Your task to perform on an android device: Go to Amazon Image 0: 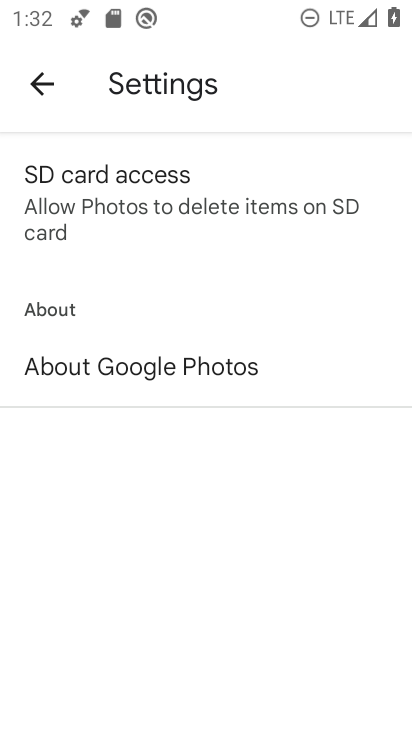
Step 0: press home button
Your task to perform on an android device: Go to Amazon Image 1: 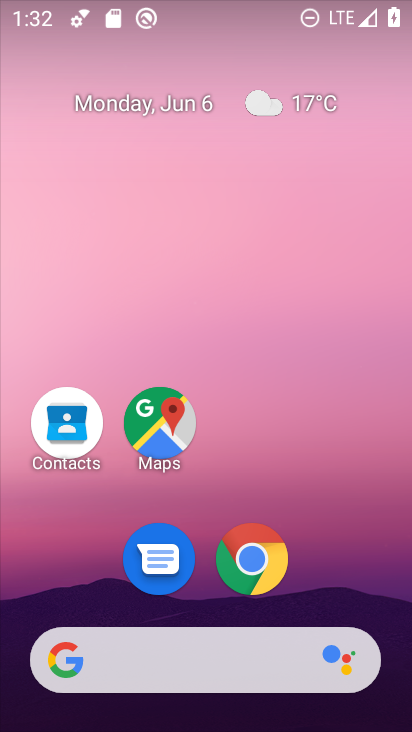
Step 1: drag from (179, 689) to (225, 61)
Your task to perform on an android device: Go to Amazon Image 2: 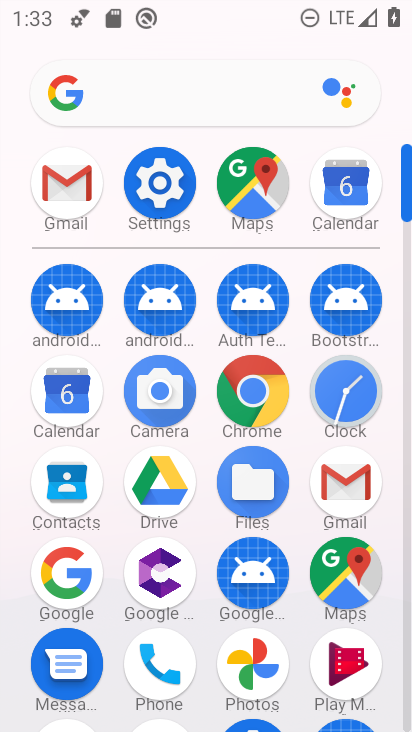
Step 2: click (250, 401)
Your task to perform on an android device: Go to Amazon Image 3: 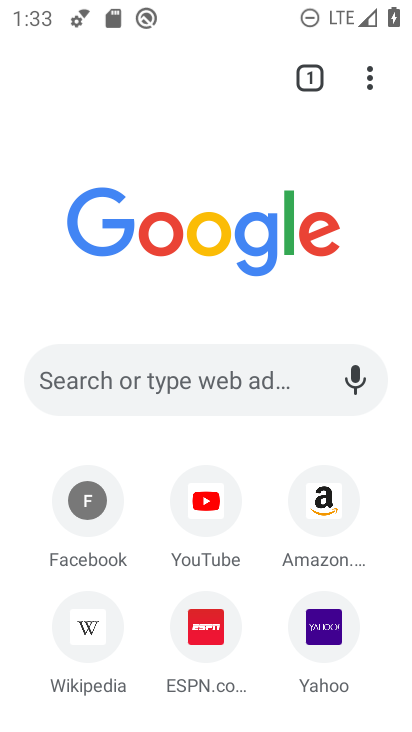
Step 3: click (333, 491)
Your task to perform on an android device: Go to Amazon Image 4: 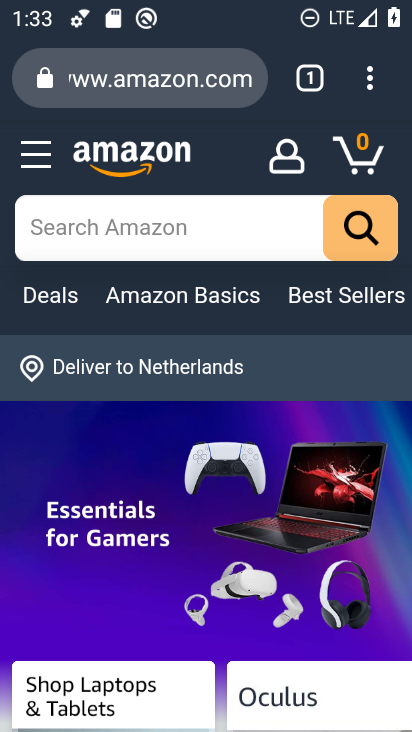
Step 4: task complete